Your task to perform on an android device: all mails in gmail Image 0: 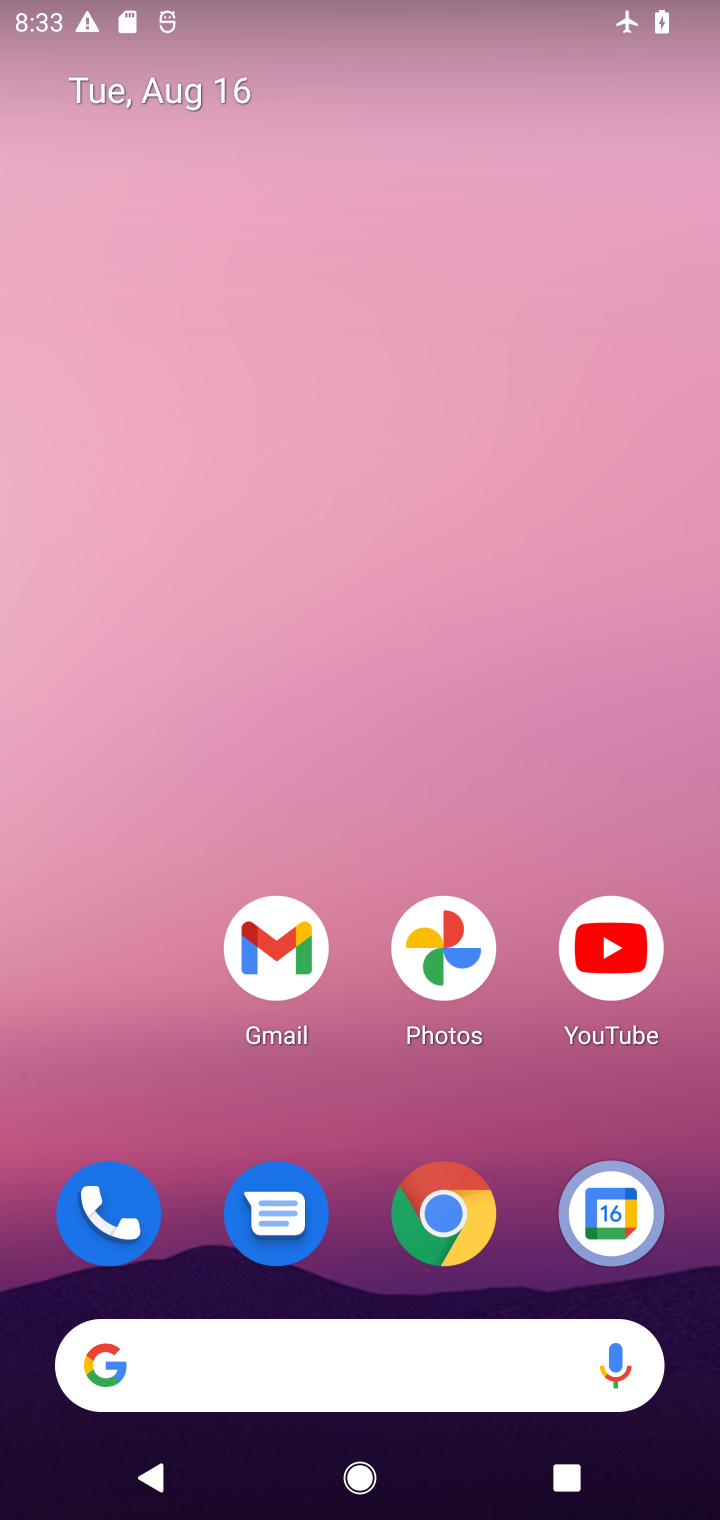
Step 0: drag from (379, 1162) to (394, 520)
Your task to perform on an android device: all mails in gmail Image 1: 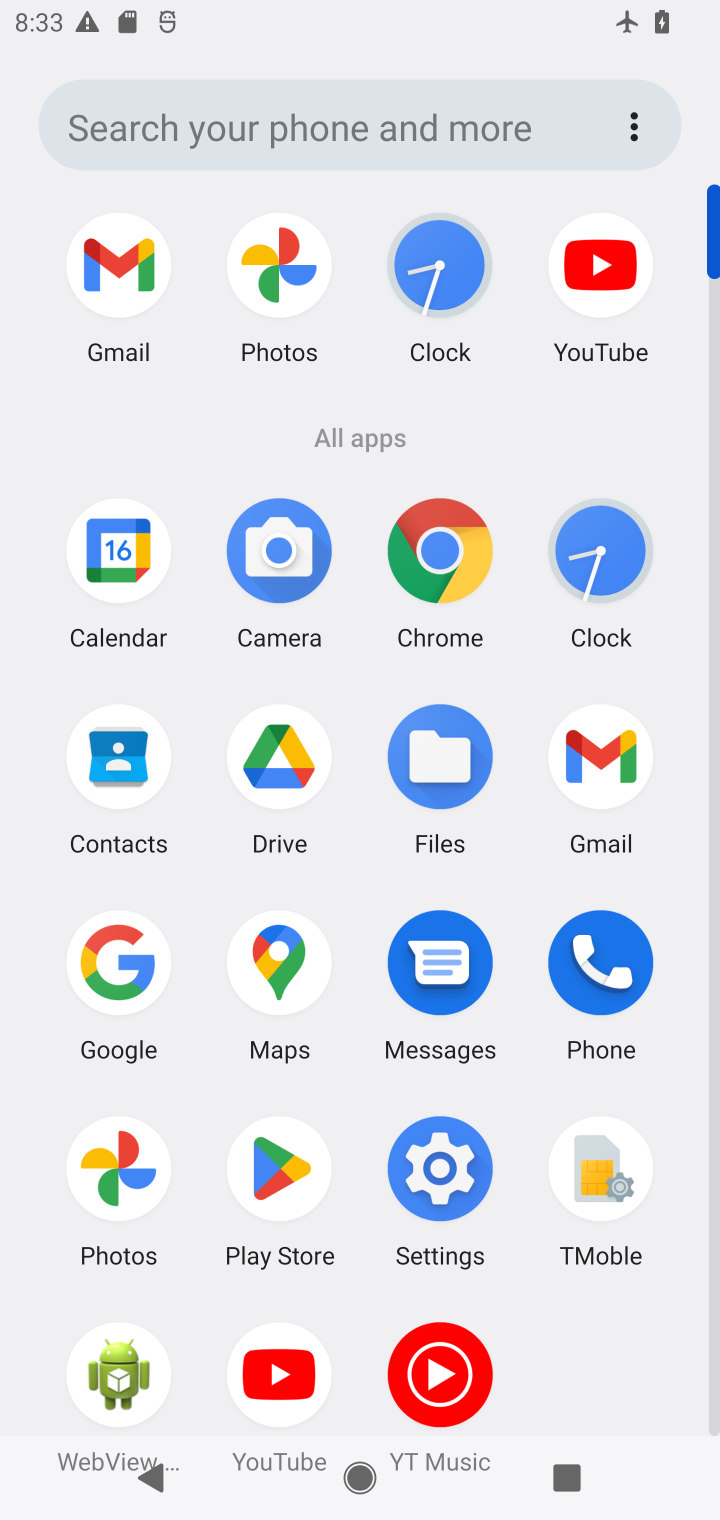
Step 1: click (589, 746)
Your task to perform on an android device: all mails in gmail Image 2: 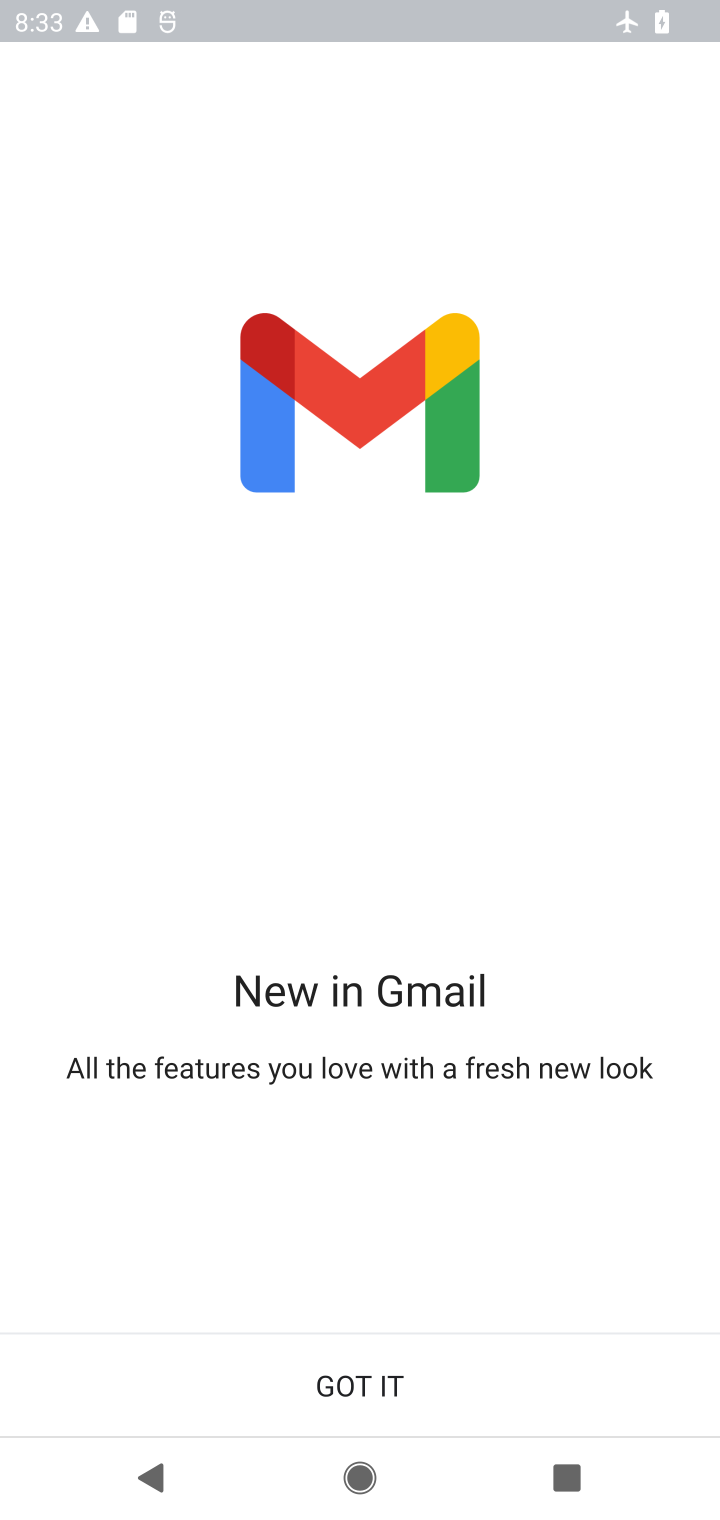
Step 2: click (399, 1380)
Your task to perform on an android device: all mails in gmail Image 3: 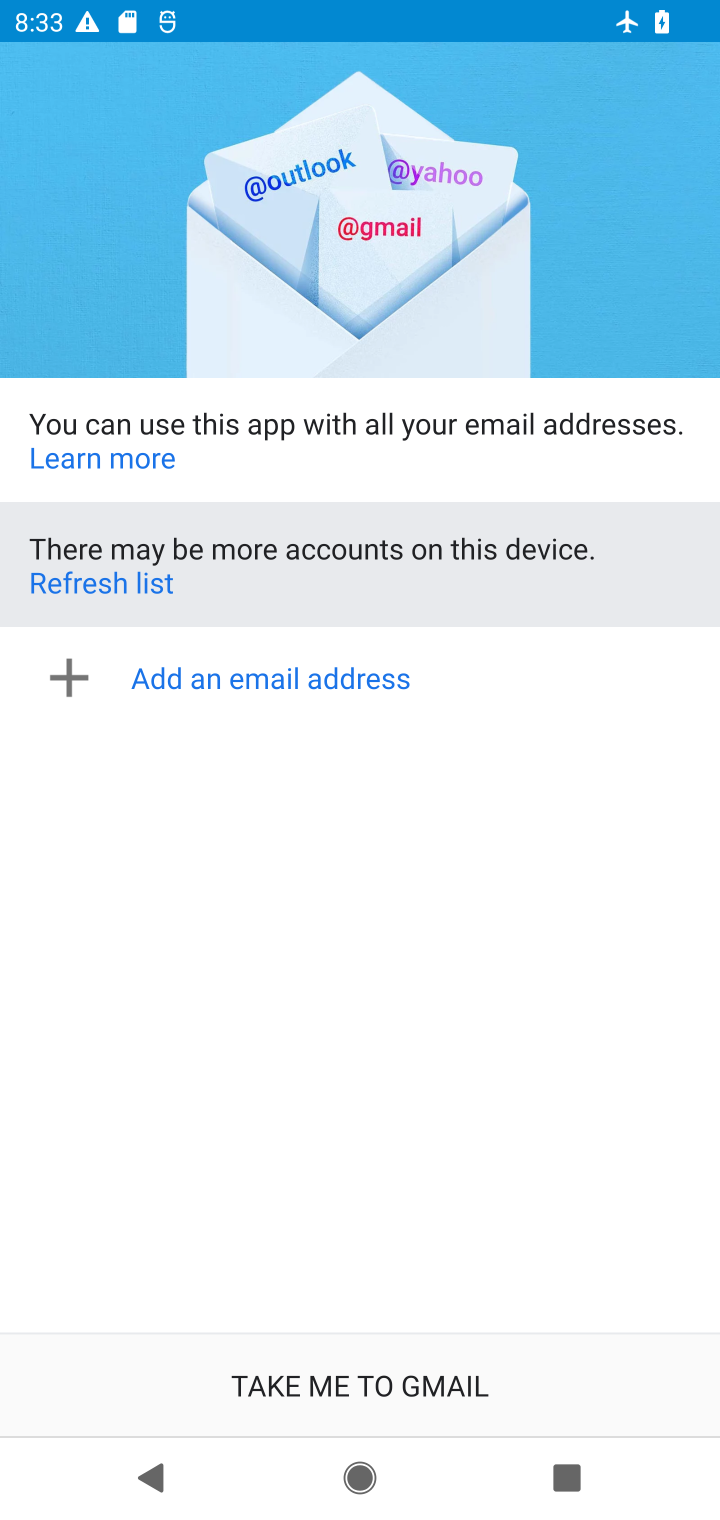
Step 3: click (399, 1397)
Your task to perform on an android device: all mails in gmail Image 4: 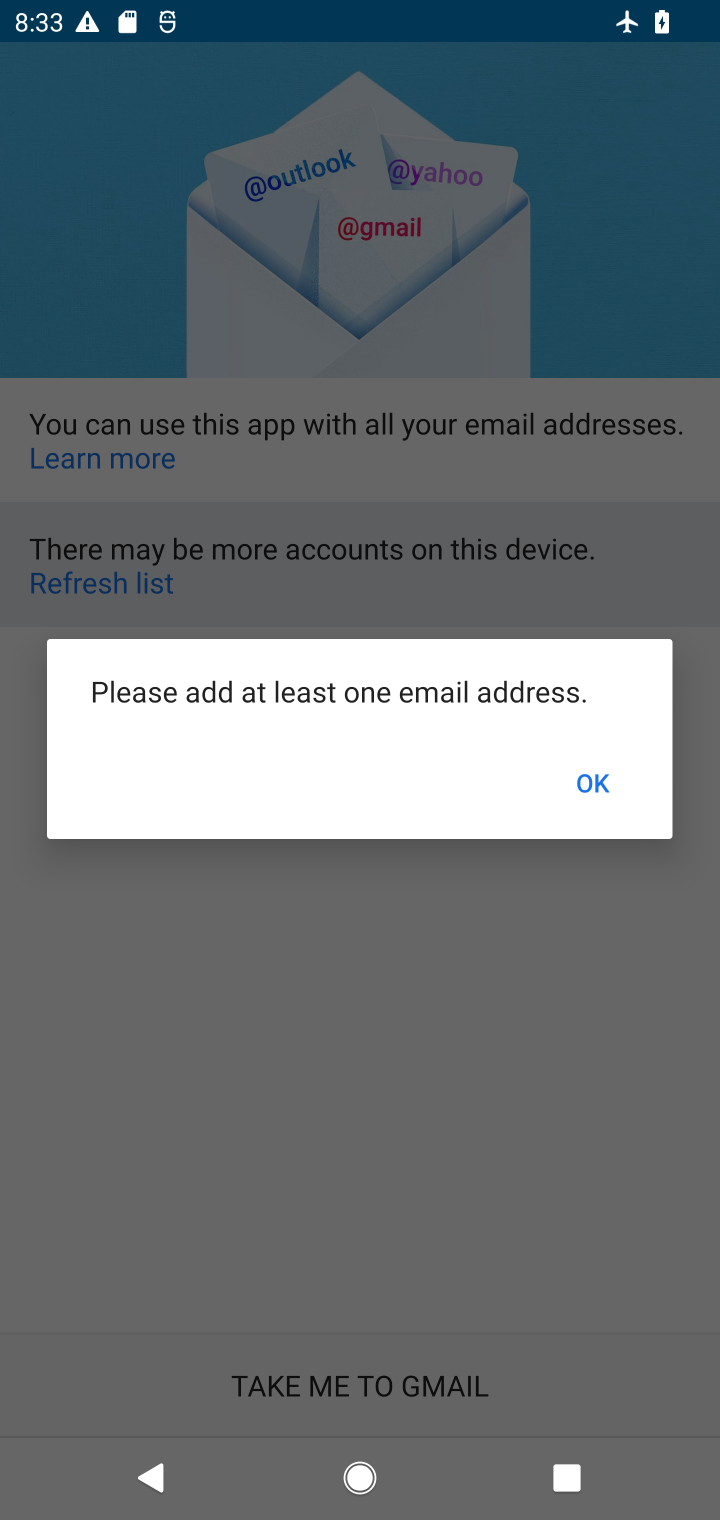
Step 4: task complete